Your task to perform on an android device: Go to Google Image 0: 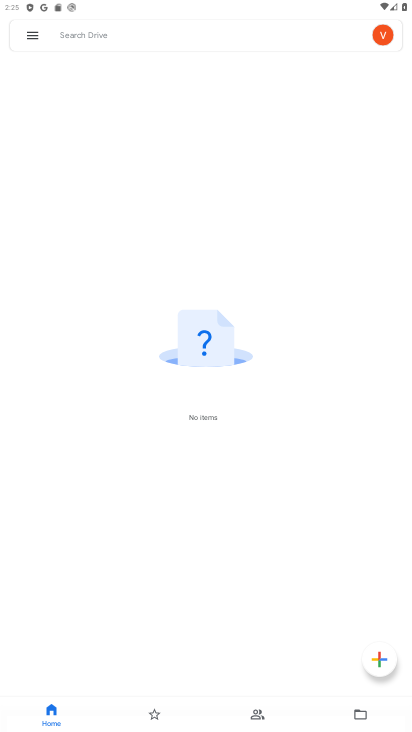
Step 0: press home button
Your task to perform on an android device: Go to Google Image 1: 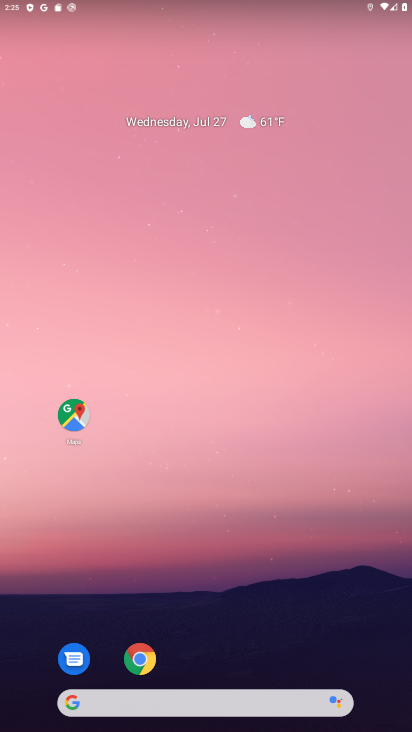
Step 1: drag from (170, 665) to (170, 320)
Your task to perform on an android device: Go to Google Image 2: 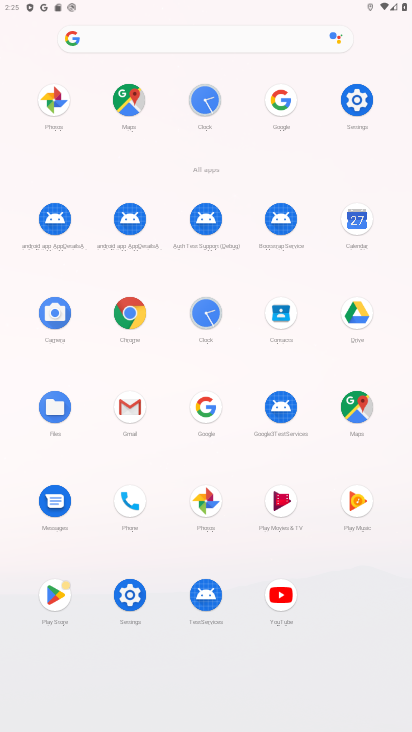
Step 2: click (211, 407)
Your task to perform on an android device: Go to Google Image 3: 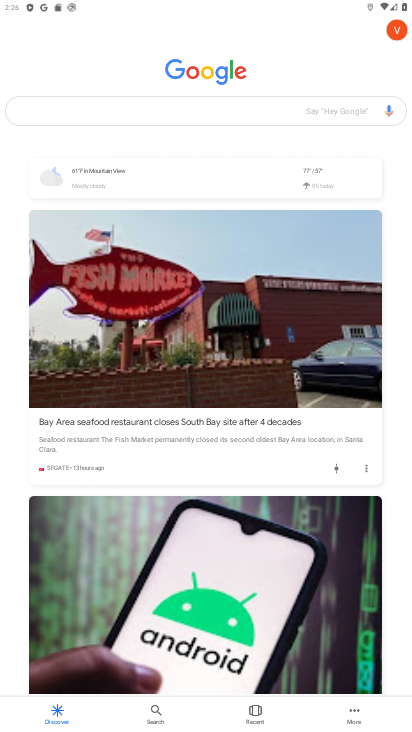
Step 3: task complete